Your task to perform on an android device: open a bookmark in the chrome app Image 0: 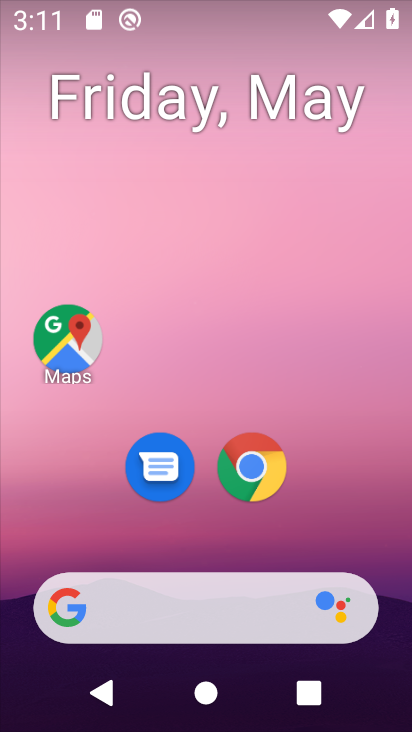
Step 0: click (261, 468)
Your task to perform on an android device: open a bookmark in the chrome app Image 1: 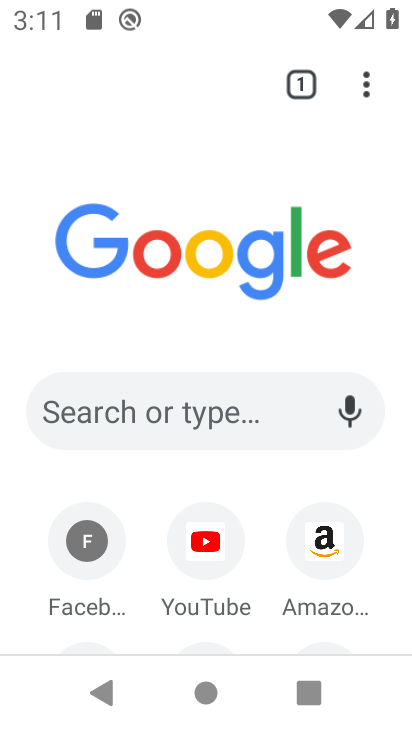
Step 1: click (374, 85)
Your task to perform on an android device: open a bookmark in the chrome app Image 2: 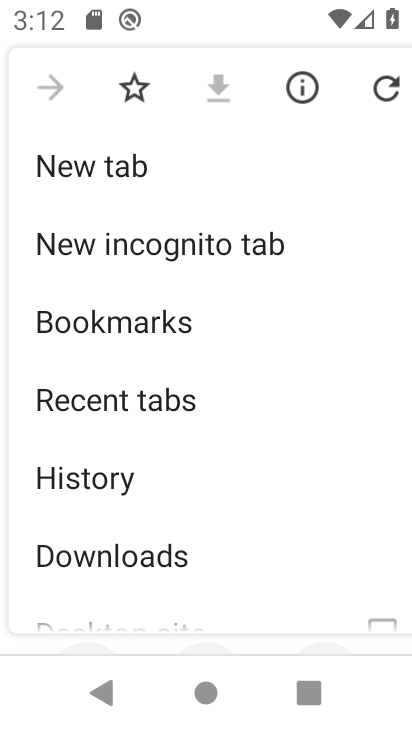
Step 2: click (204, 311)
Your task to perform on an android device: open a bookmark in the chrome app Image 3: 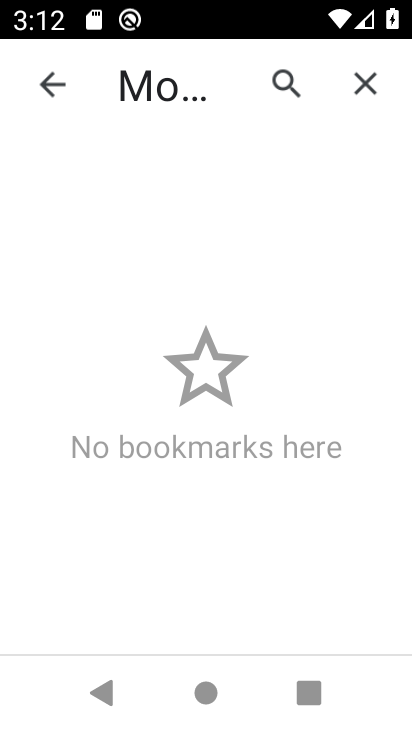
Step 3: task complete